Your task to perform on an android device: turn on airplane mode Image 0: 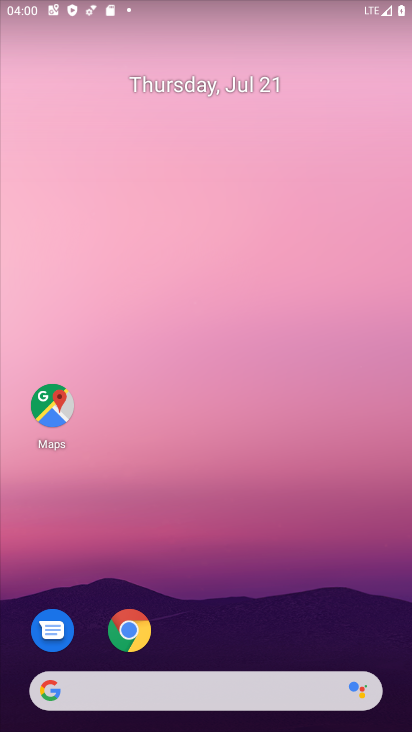
Step 0: drag from (259, 10) to (352, 507)
Your task to perform on an android device: turn on airplane mode Image 1: 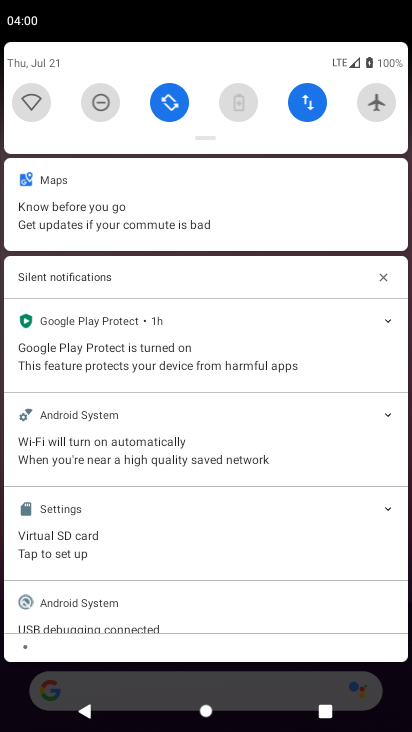
Step 1: click (377, 98)
Your task to perform on an android device: turn on airplane mode Image 2: 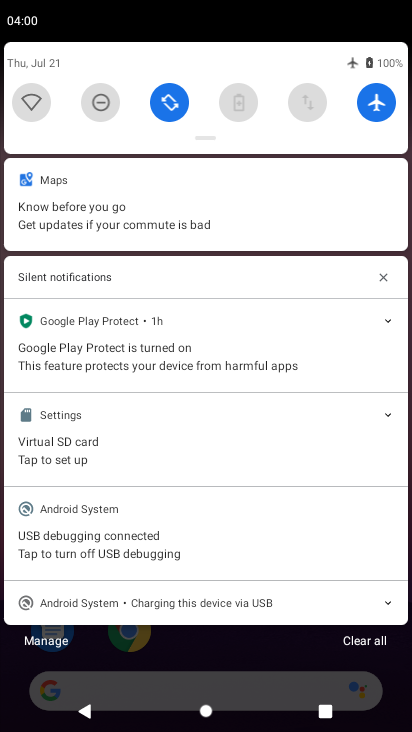
Step 2: task complete